Your task to perform on an android device: Check the weather Image 0: 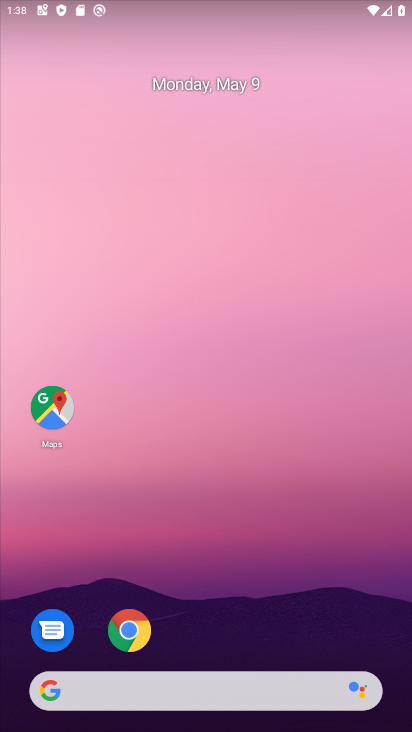
Step 0: drag from (294, 699) to (406, 124)
Your task to perform on an android device: Check the weather Image 1: 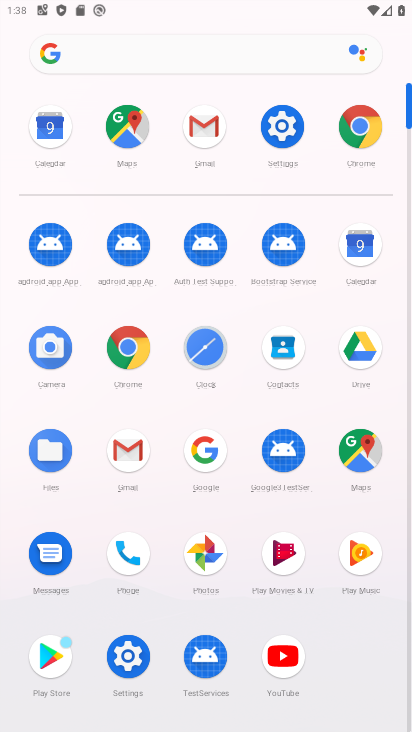
Step 1: click (160, 49)
Your task to perform on an android device: Check the weather Image 2: 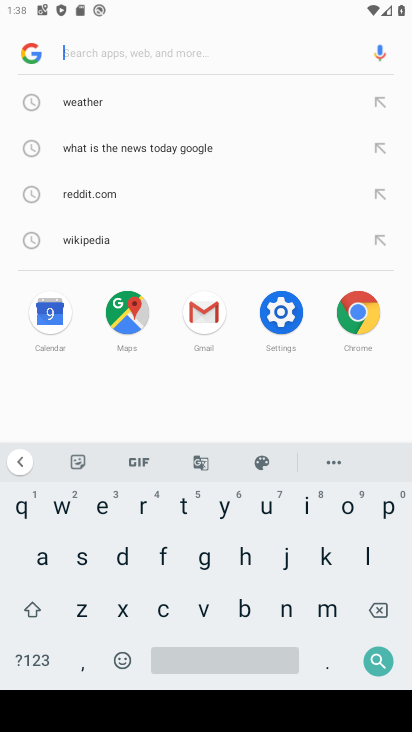
Step 2: click (114, 102)
Your task to perform on an android device: Check the weather Image 3: 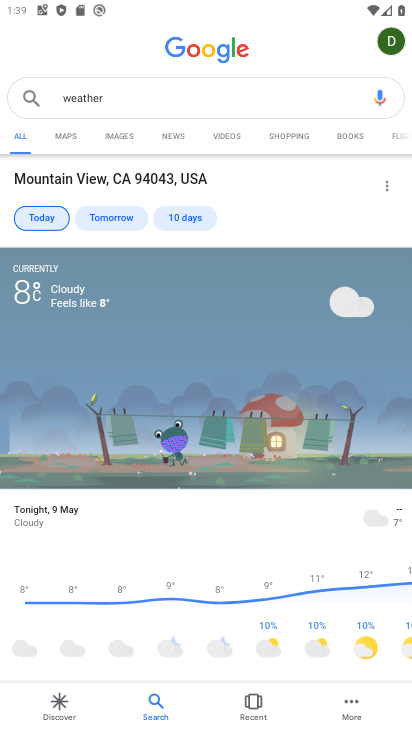
Step 3: task complete